Your task to perform on an android device: install app "Google Chat" Image 0: 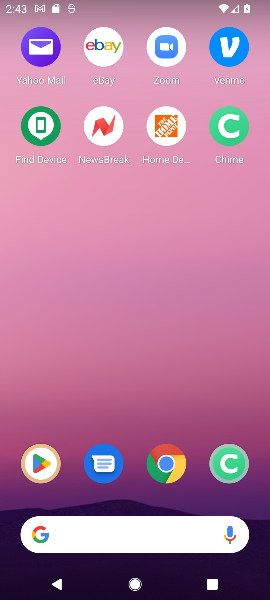
Step 0: press home button
Your task to perform on an android device: install app "Google Chat" Image 1: 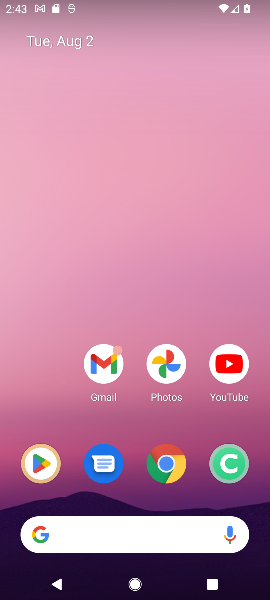
Step 1: click (37, 463)
Your task to perform on an android device: install app "Google Chat" Image 2: 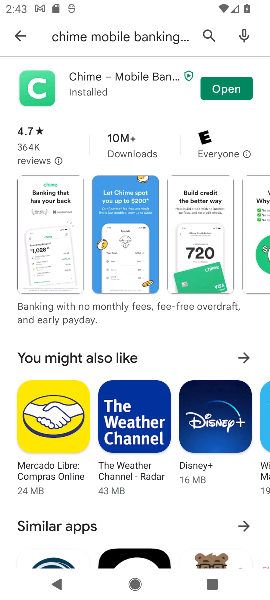
Step 2: click (206, 32)
Your task to perform on an android device: install app "Google Chat" Image 3: 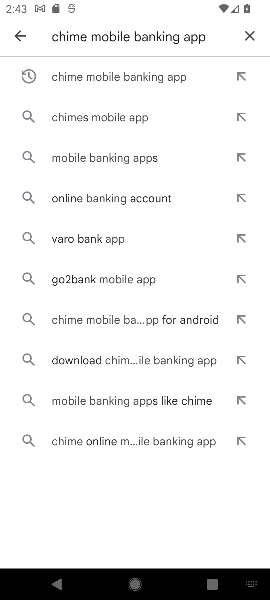
Step 3: click (246, 27)
Your task to perform on an android device: install app "Google Chat" Image 4: 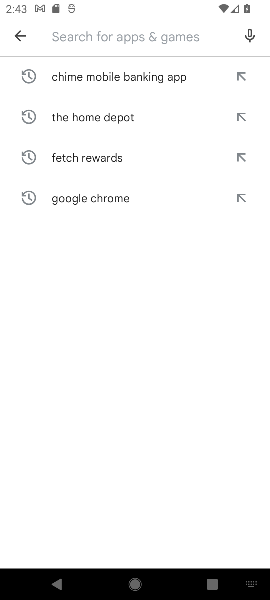
Step 4: type "Google Chat"
Your task to perform on an android device: install app "Google Chat" Image 5: 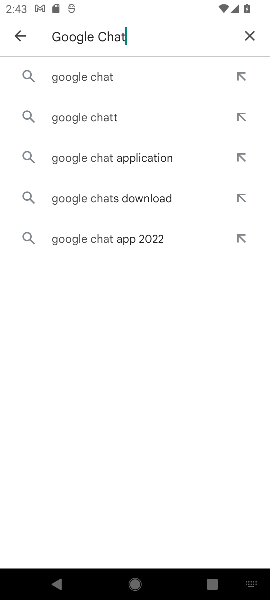
Step 5: click (86, 73)
Your task to perform on an android device: install app "Google Chat" Image 6: 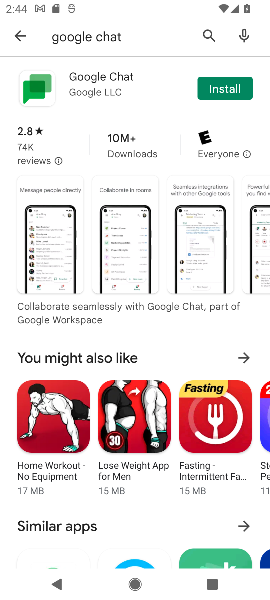
Step 6: click (226, 83)
Your task to perform on an android device: install app "Google Chat" Image 7: 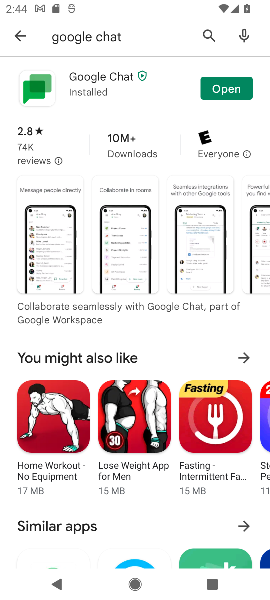
Step 7: task complete